Your task to perform on an android device: turn off location history Image 0: 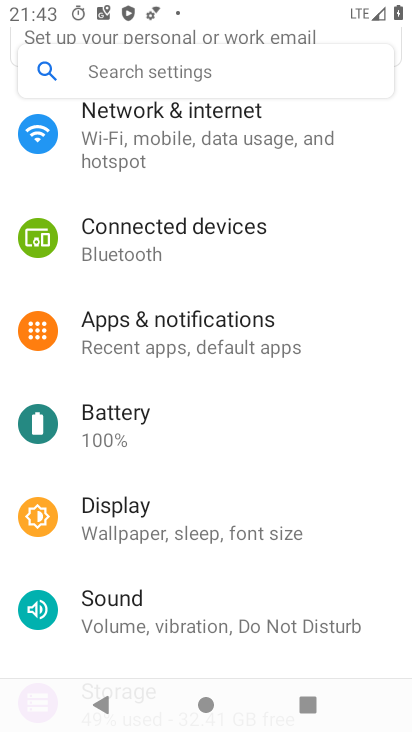
Step 0: press home button
Your task to perform on an android device: turn off location history Image 1: 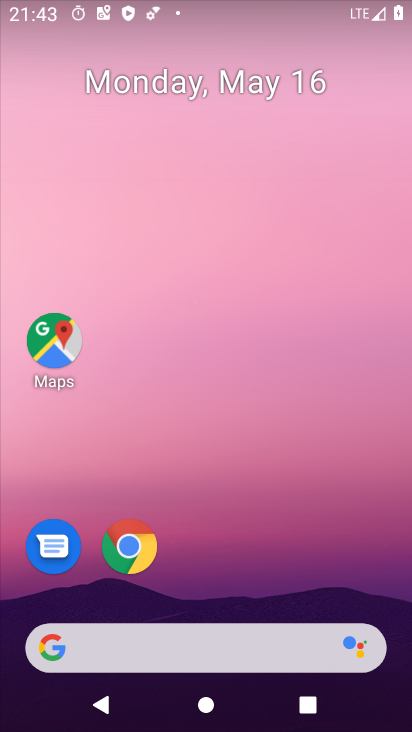
Step 1: drag from (268, 667) to (215, 184)
Your task to perform on an android device: turn off location history Image 2: 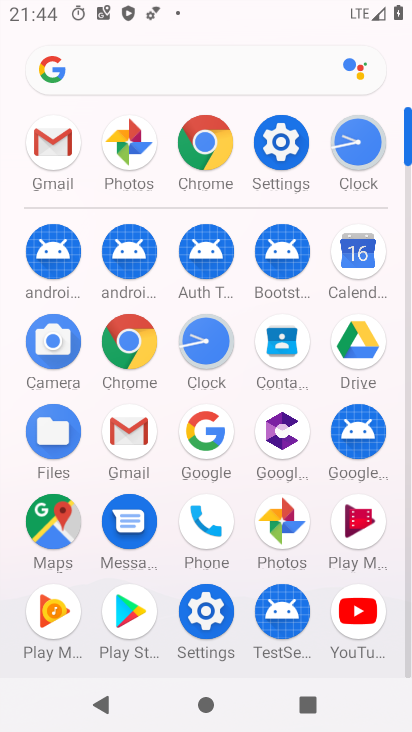
Step 2: click (289, 147)
Your task to perform on an android device: turn off location history Image 3: 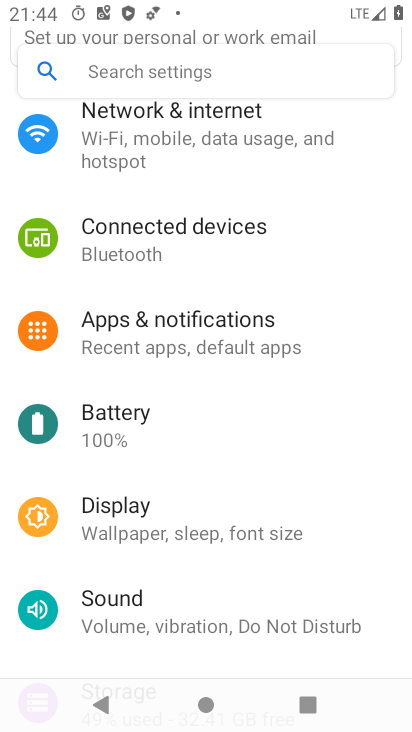
Step 3: click (106, 67)
Your task to perform on an android device: turn off location history Image 4: 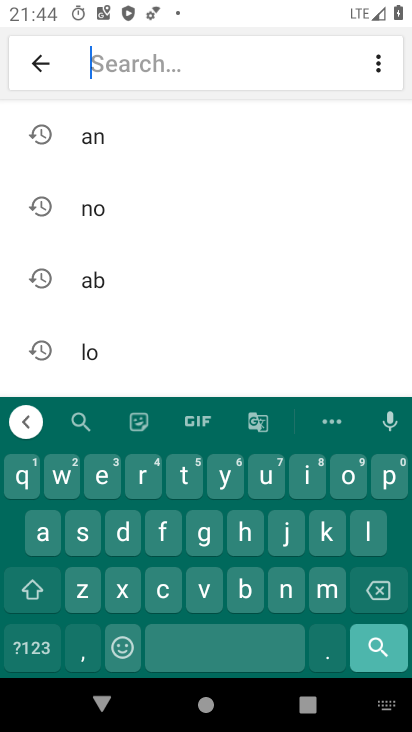
Step 4: click (100, 352)
Your task to perform on an android device: turn off location history Image 5: 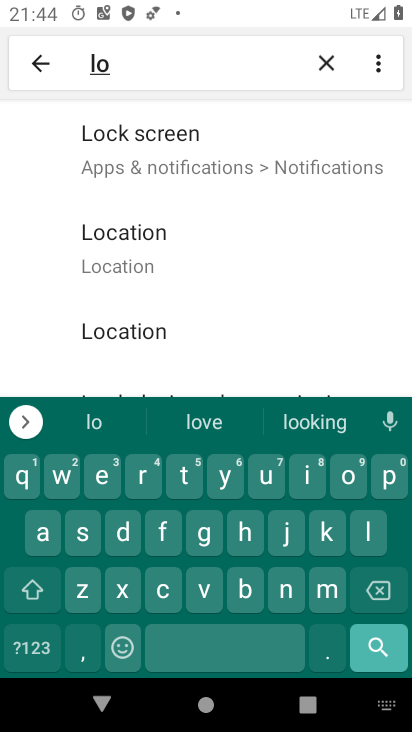
Step 5: click (135, 250)
Your task to perform on an android device: turn off location history Image 6: 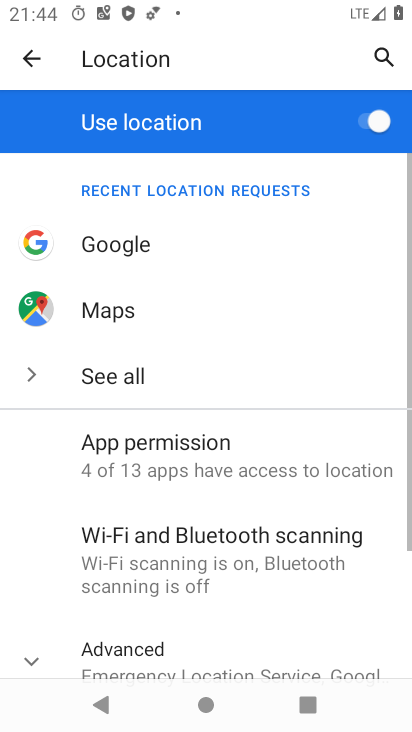
Step 6: drag from (176, 559) to (206, 394)
Your task to perform on an android device: turn off location history Image 7: 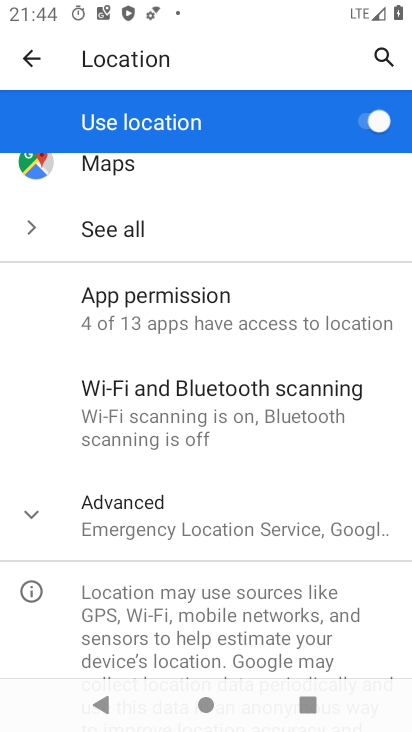
Step 7: click (33, 505)
Your task to perform on an android device: turn off location history Image 8: 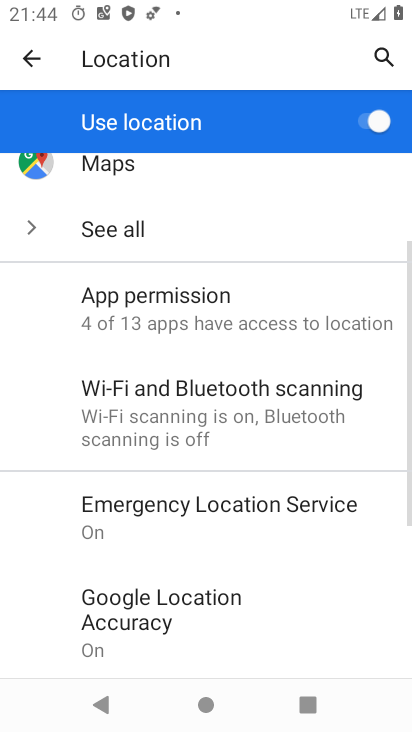
Step 8: drag from (190, 566) to (204, 407)
Your task to perform on an android device: turn off location history Image 9: 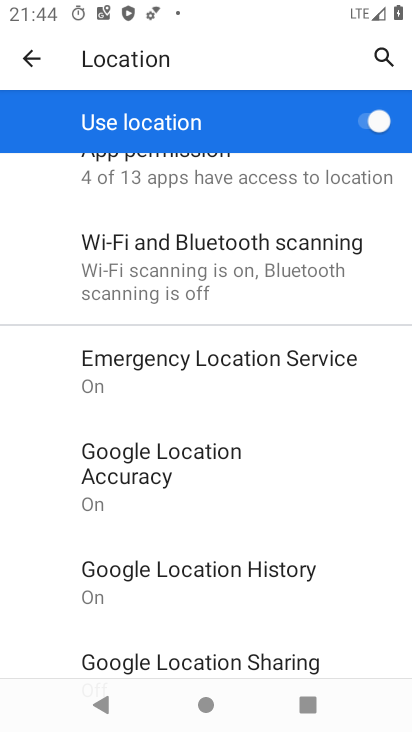
Step 9: click (225, 558)
Your task to perform on an android device: turn off location history Image 10: 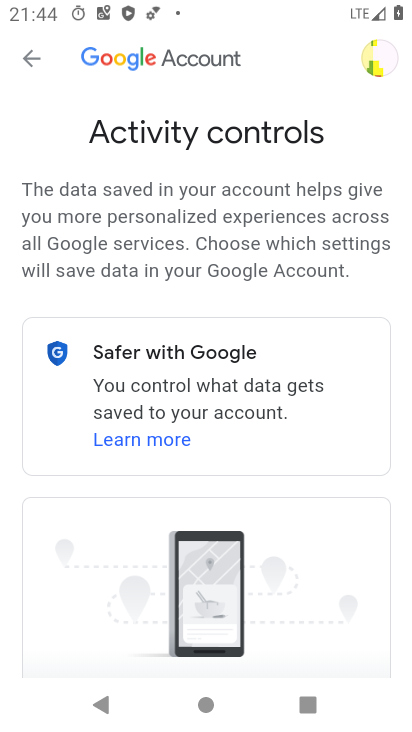
Step 10: drag from (227, 619) to (171, 289)
Your task to perform on an android device: turn off location history Image 11: 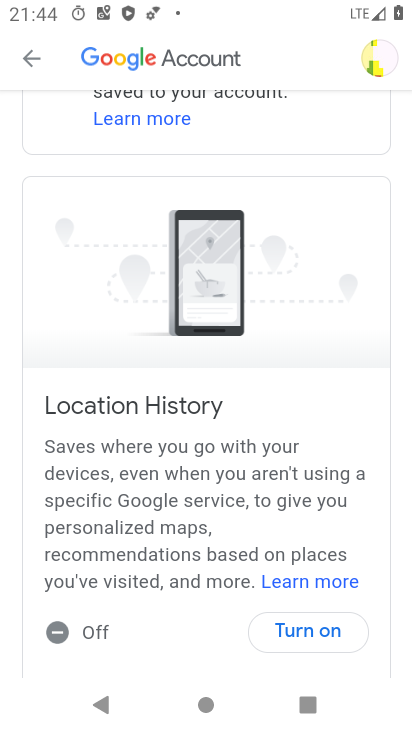
Step 11: drag from (245, 502) to (226, 328)
Your task to perform on an android device: turn off location history Image 12: 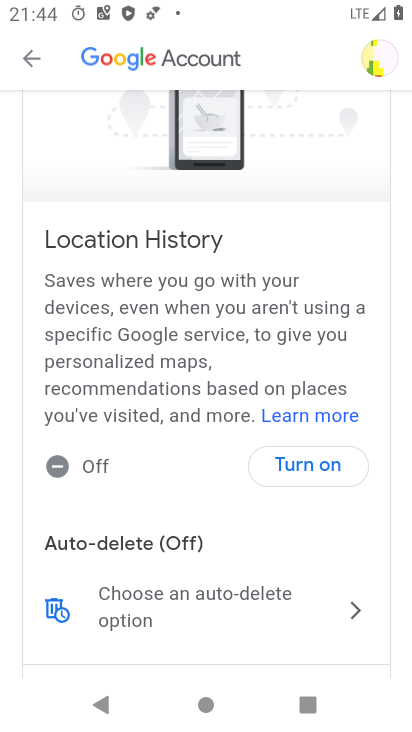
Step 12: click (75, 470)
Your task to perform on an android device: turn off location history Image 13: 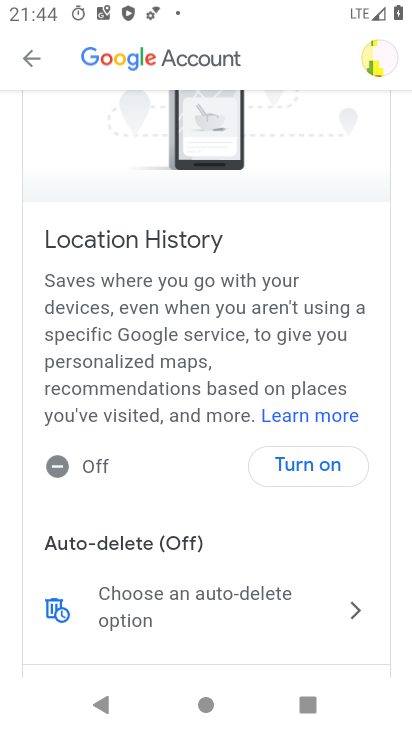
Step 13: task complete